Your task to perform on an android device: delete browsing data in the chrome app Image 0: 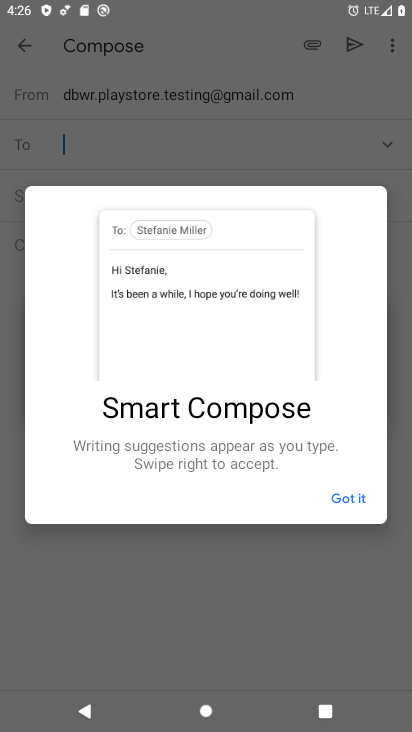
Step 0: press home button
Your task to perform on an android device: delete browsing data in the chrome app Image 1: 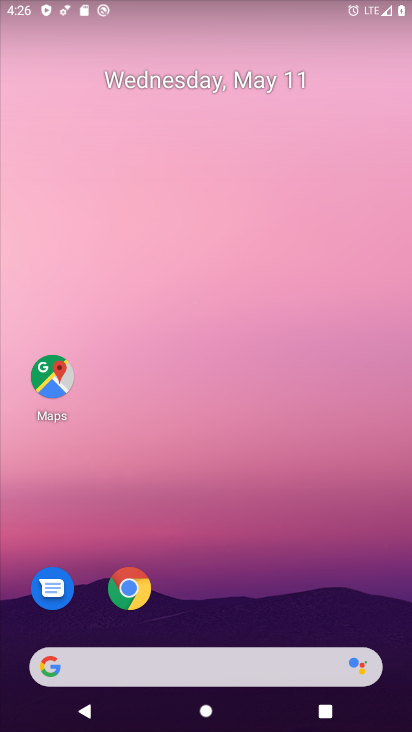
Step 1: drag from (291, 591) to (279, 0)
Your task to perform on an android device: delete browsing data in the chrome app Image 2: 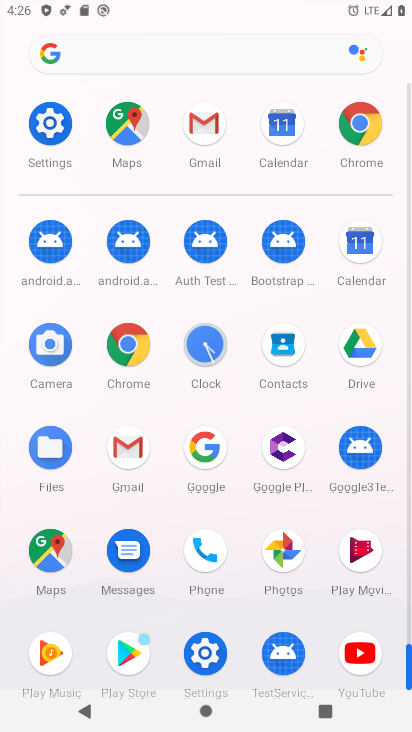
Step 2: click (362, 154)
Your task to perform on an android device: delete browsing data in the chrome app Image 3: 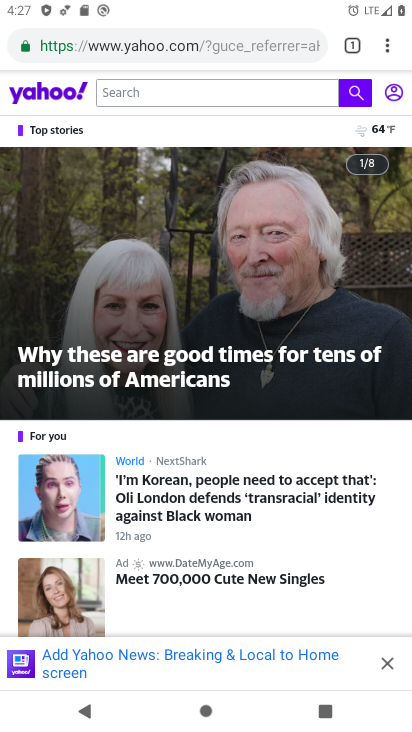
Step 3: drag from (385, 54) to (249, 260)
Your task to perform on an android device: delete browsing data in the chrome app Image 4: 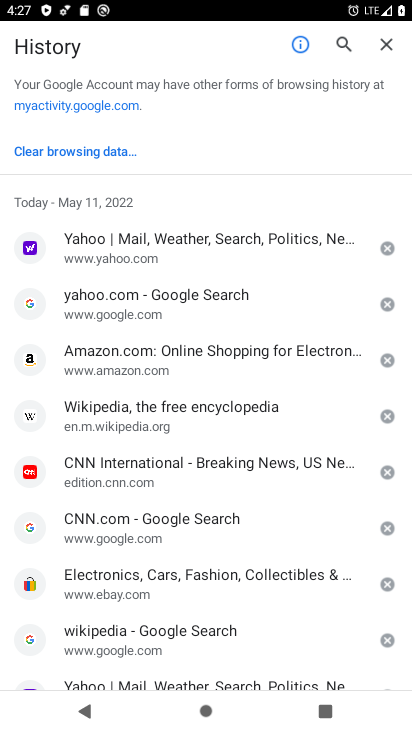
Step 4: click (79, 155)
Your task to perform on an android device: delete browsing data in the chrome app Image 5: 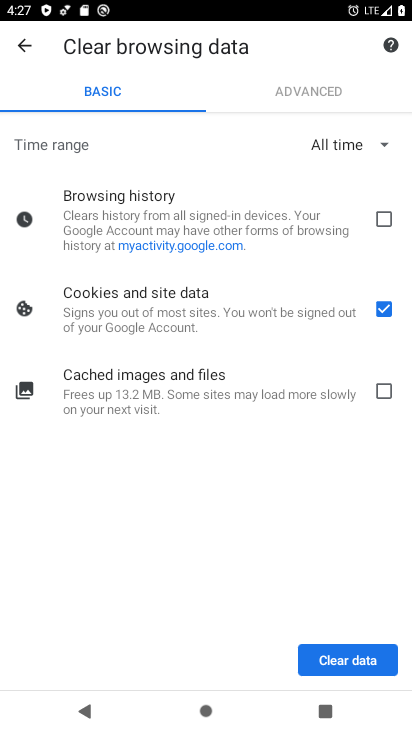
Step 5: click (392, 306)
Your task to perform on an android device: delete browsing data in the chrome app Image 6: 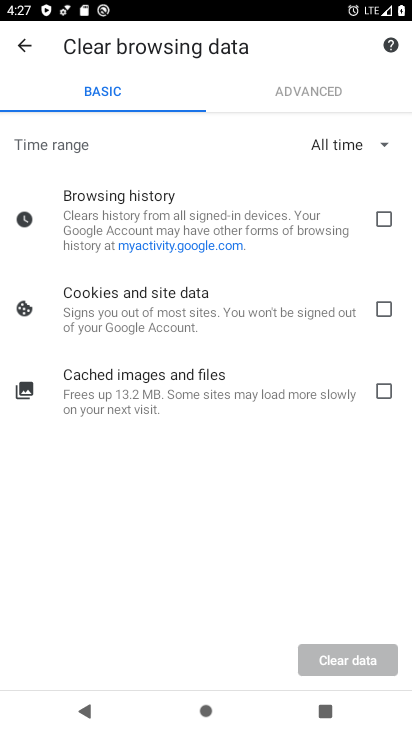
Step 6: click (390, 223)
Your task to perform on an android device: delete browsing data in the chrome app Image 7: 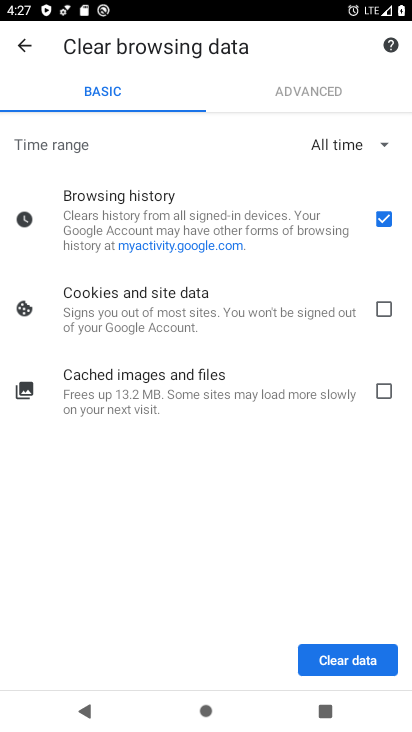
Step 7: click (352, 666)
Your task to perform on an android device: delete browsing data in the chrome app Image 8: 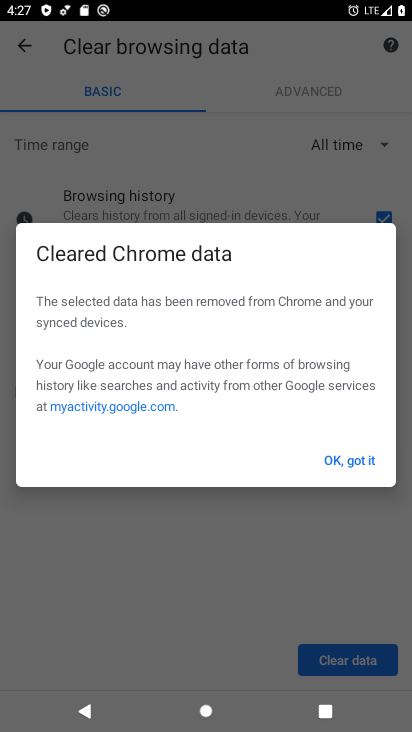
Step 8: click (349, 453)
Your task to perform on an android device: delete browsing data in the chrome app Image 9: 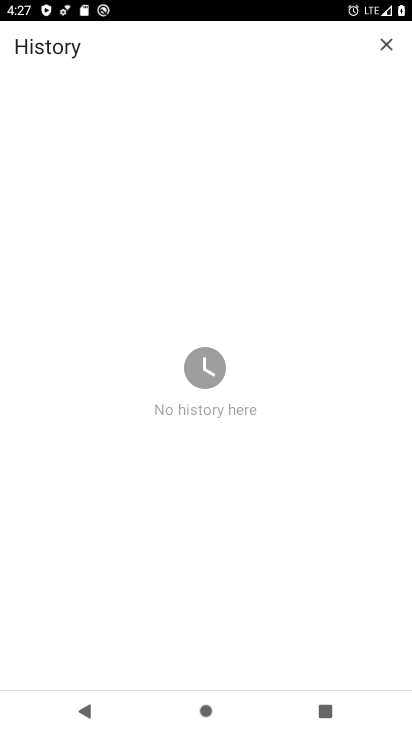
Step 9: task complete